Your task to perform on an android device: change the upload size in google photos Image 0: 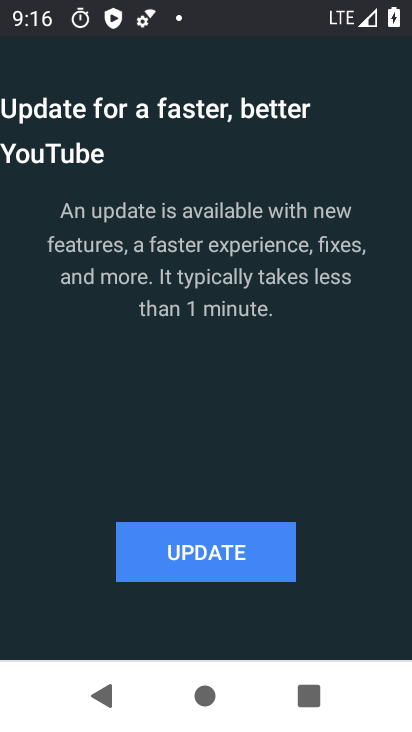
Step 0: press back button
Your task to perform on an android device: change the upload size in google photos Image 1: 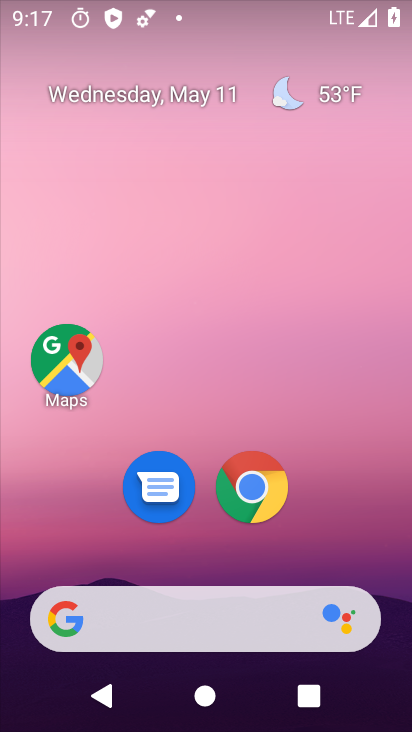
Step 1: drag from (330, 522) to (291, 107)
Your task to perform on an android device: change the upload size in google photos Image 2: 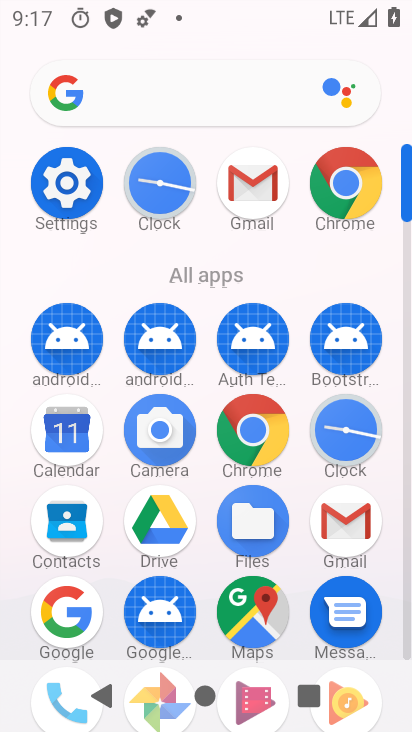
Step 2: drag from (208, 478) to (199, 210)
Your task to perform on an android device: change the upload size in google photos Image 3: 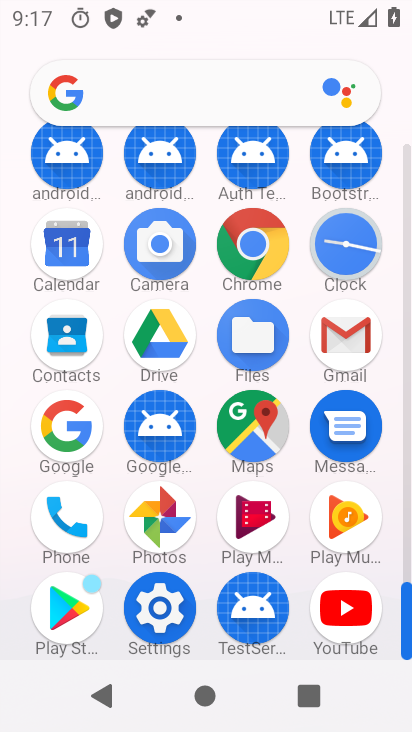
Step 3: click (161, 516)
Your task to perform on an android device: change the upload size in google photos Image 4: 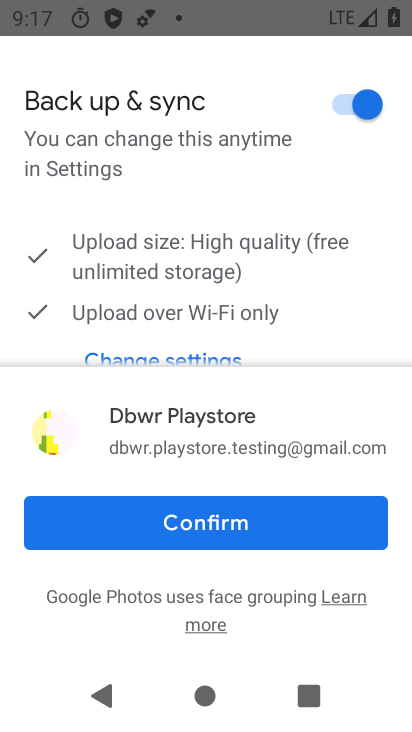
Step 4: click (170, 526)
Your task to perform on an android device: change the upload size in google photos Image 5: 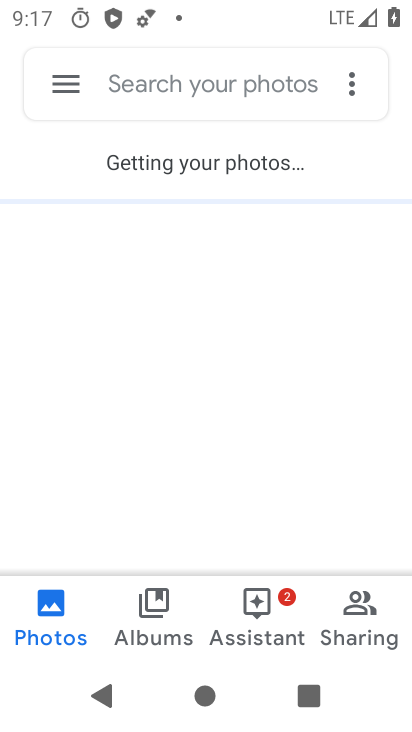
Step 5: click (68, 88)
Your task to perform on an android device: change the upload size in google photos Image 6: 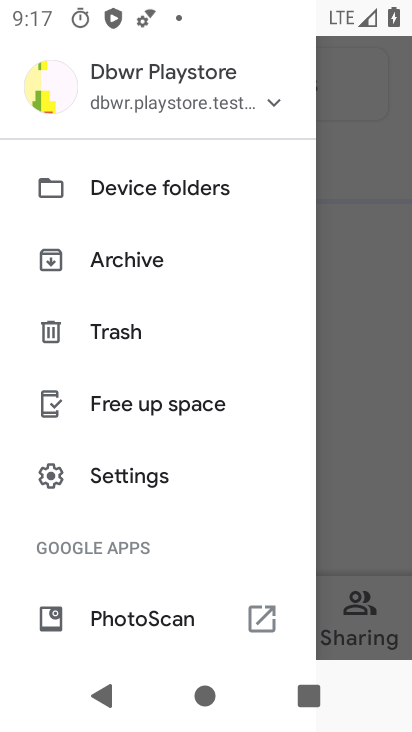
Step 6: click (134, 477)
Your task to perform on an android device: change the upload size in google photos Image 7: 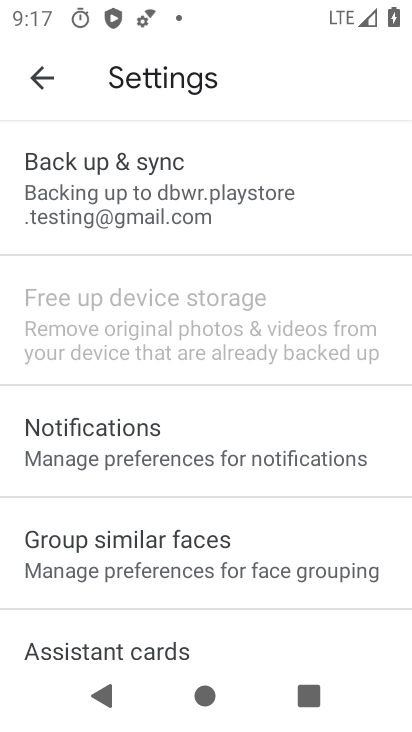
Step 7: click (157, 169)
Your task to perform on an android device: change the upload size in google photos Image 8: 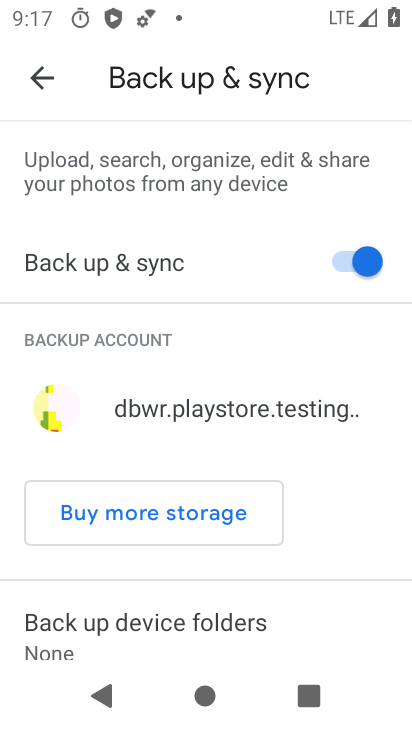
Step 8: drag from (175, 554) to (239, 350)
Your task to perform on an android device: change the upload size in google photos Image 9: 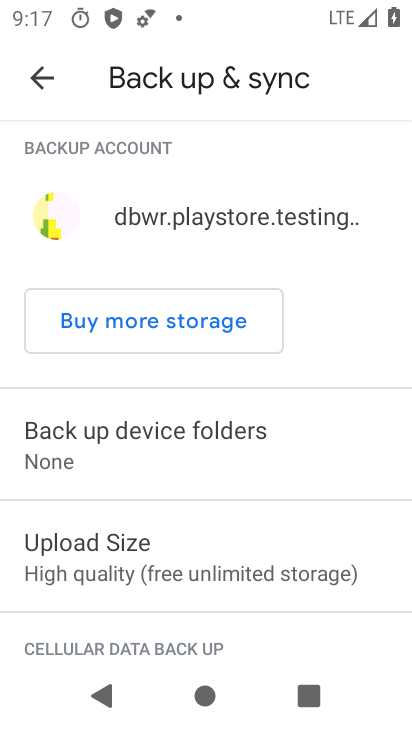
Step 9: click (154, 578)
Your task to perform on an android device: change the upload size in google photos Image 10: 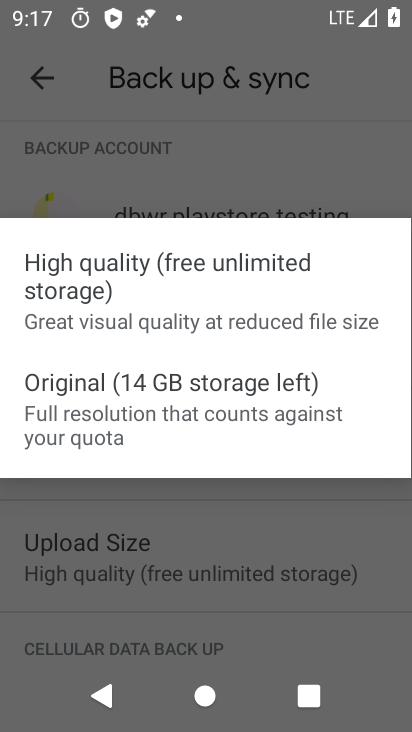
Step 10: click (165, 401)
Your task to perform on an android device: change the upload size in google photos Image 11: 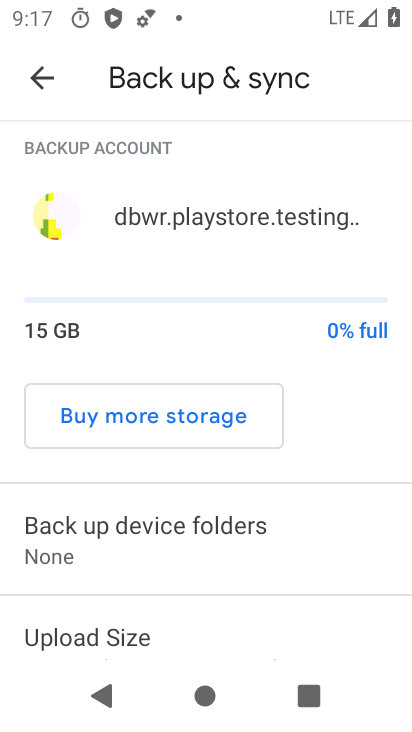
Step 11: task complete